Your task to perform on an android device: Search for sushi restaurants on Maps Image 0: 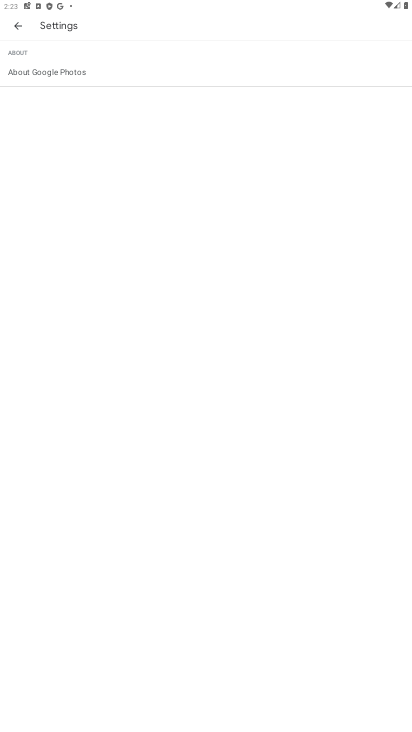
Step 0: press home button
Your task to perform on an android device: Search for sushi restaurants on Maps Image 1: 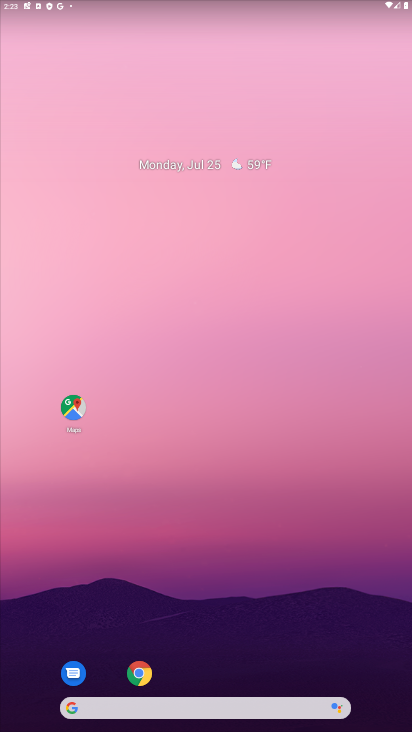
Step 1: click (64, 394)
Your task to perform on an android device: Search for sushi restaurants on Maps Image 2: 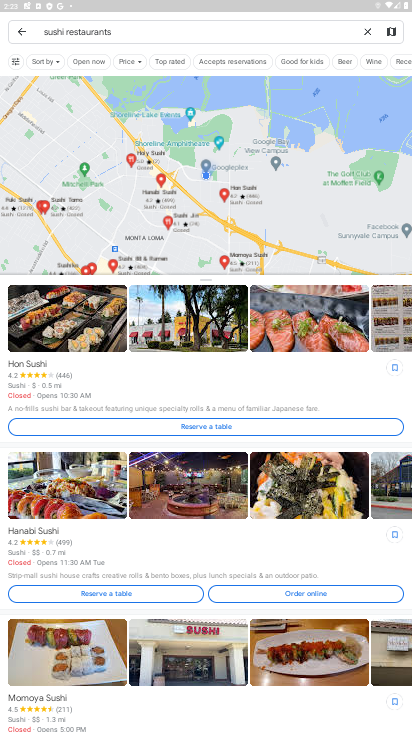
Step 2: task complete